Your task to perform on an android device: add a label to a message in the gmail app Image 0: 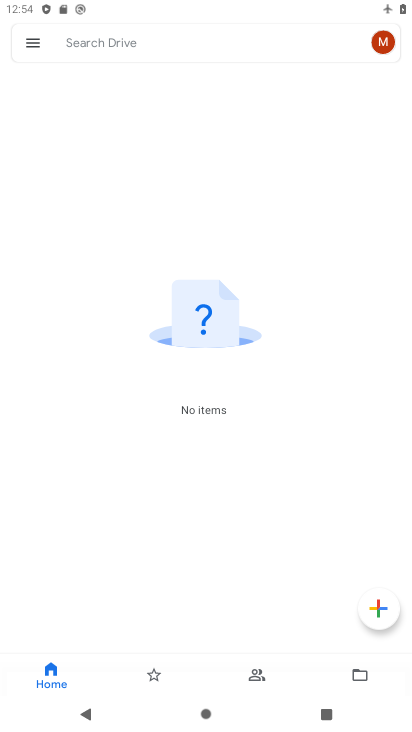
Step 0: press home button
Your task to perform on an android device: add a label to a message in the gmail app Image 1: 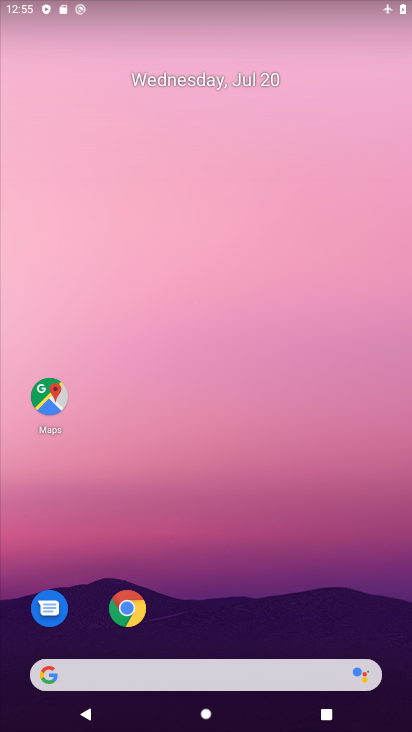
Step 1: drag from (213, 661) to (261, 5)
Your task to perform on an android device: add a label to a message in the gmail app Image 2: 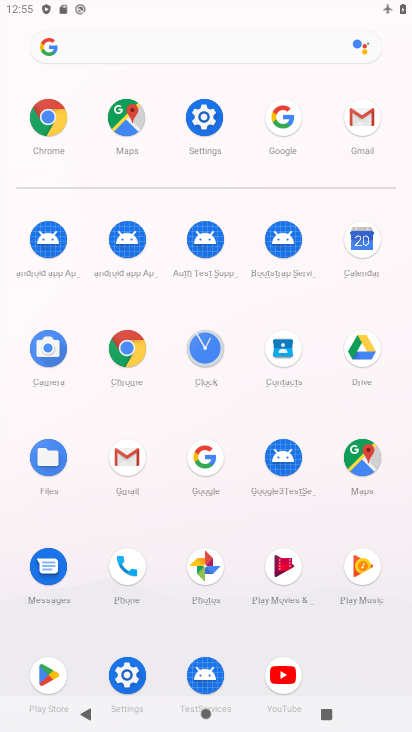
Step 2: click (127, 456)
Your task to perform on an android device: add a label to a message in the gmail app Image 3: 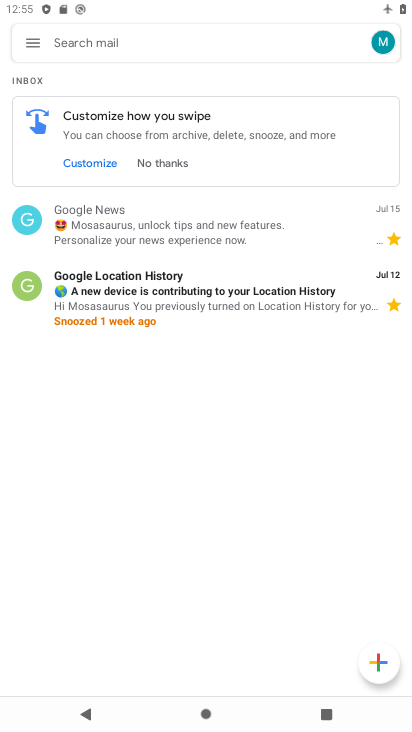
Step 3: click (133, 297)
Your task to perform on an android device: add a label to a message in the gmail app Image 4: 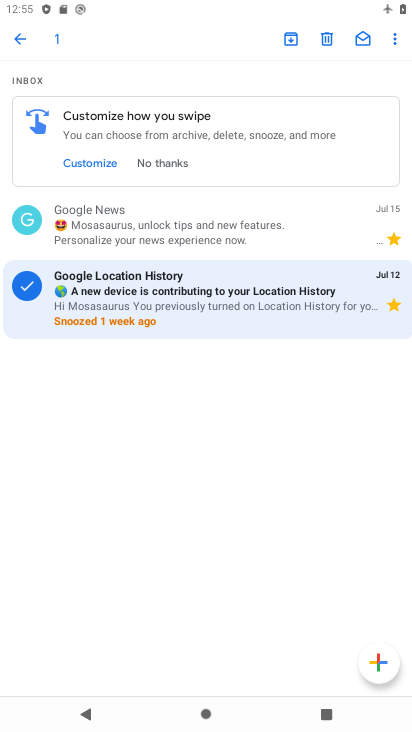
Step 4: click (396, 36)
Your task to perform on an android device: add a label to a message in the gmail app Image 5: 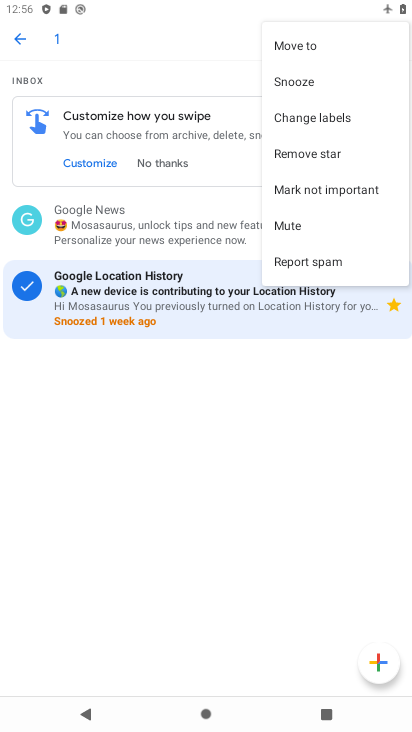
Step 5: click (290, 116)
Your task to perform on an android device: add a label to a message in the gmail app Image 6: 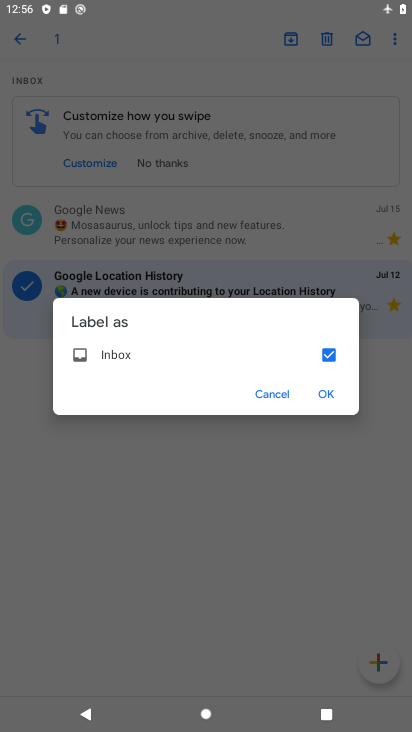
Step 6: click (329, 390)
Your task to perform on an android device: add a label to a message in the gmail app Image 7: 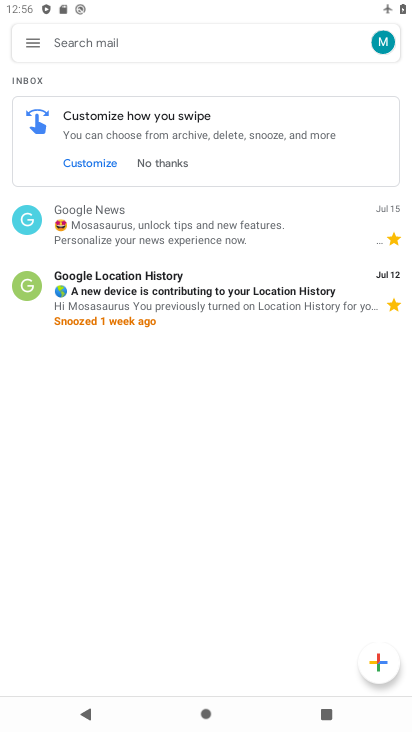
Step 7: task complete